Your task to perform on an android device: turn notification dots off Image 0: 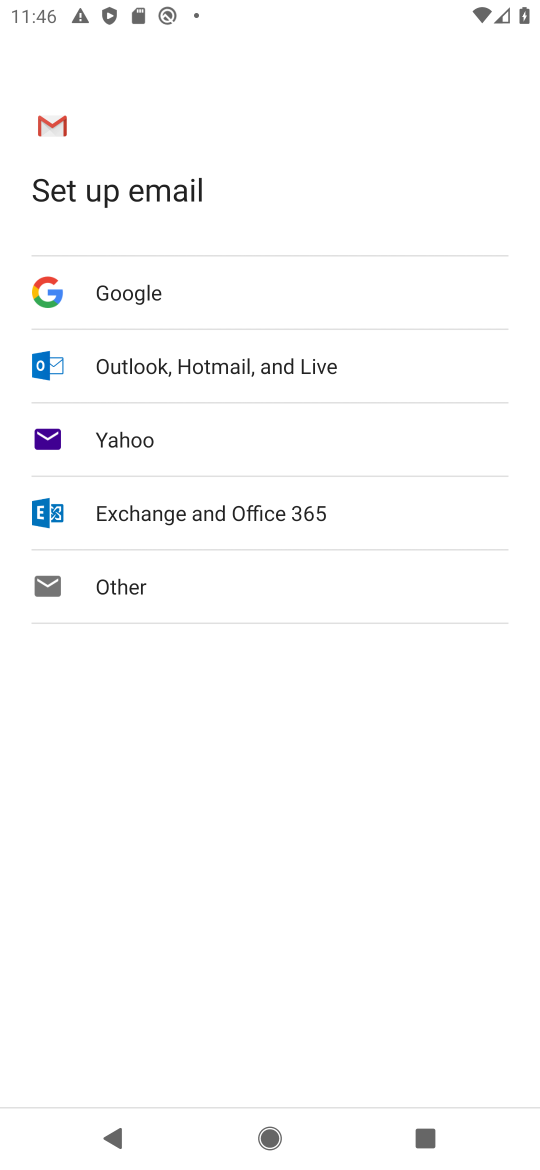
Step 0: press home button
Your task to perform on an android device: turn notification dots off Image 1: 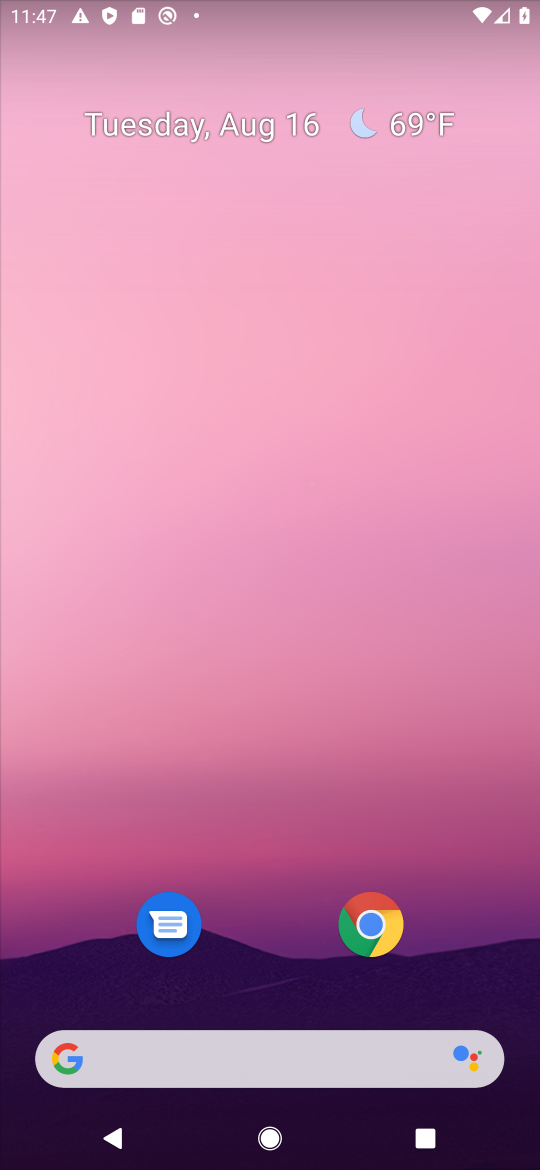
Step 1: drag from (270, 961) to (263, 121)
Your task to perform on an android device: turn notification dots off Image 2: 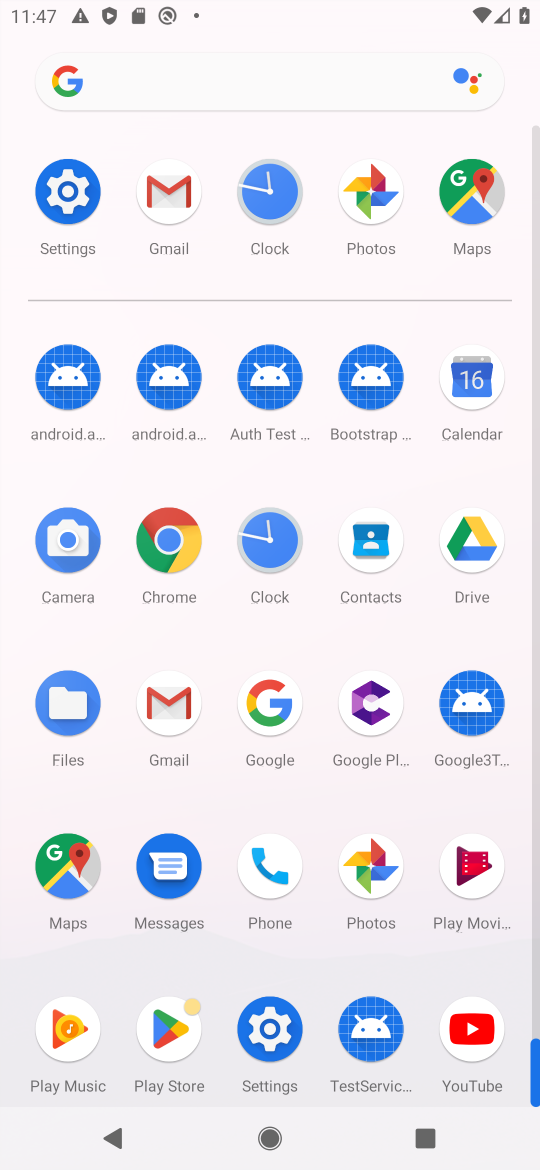
Step 2: click (68, 203)
Your task to perform on an android device: turn notification dots off Image 3: 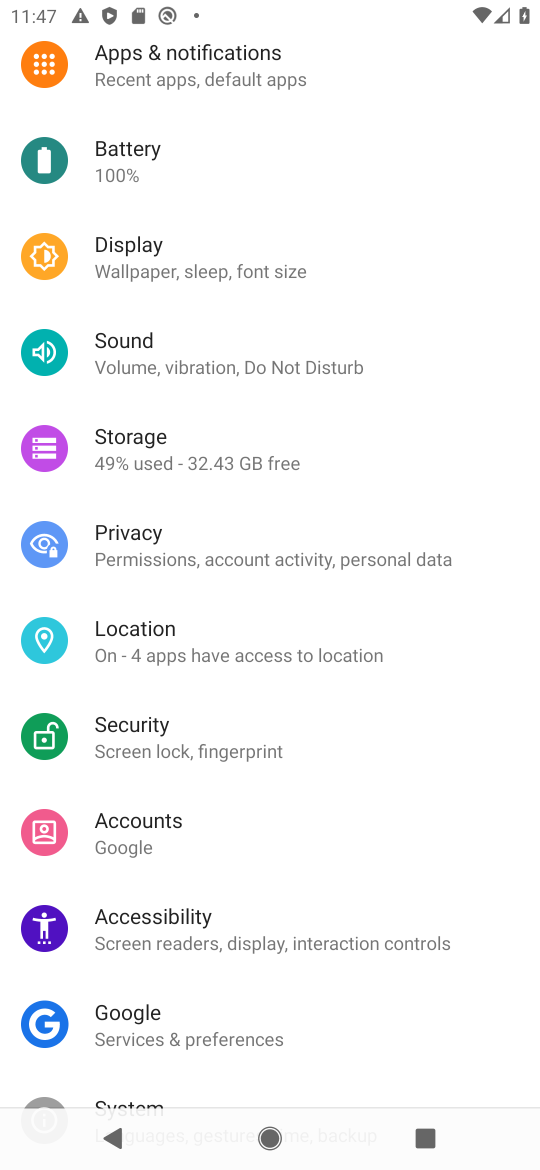
Step 3: click (154, 80)
Your task to perform on an android device: turn notification dots off Image 4: 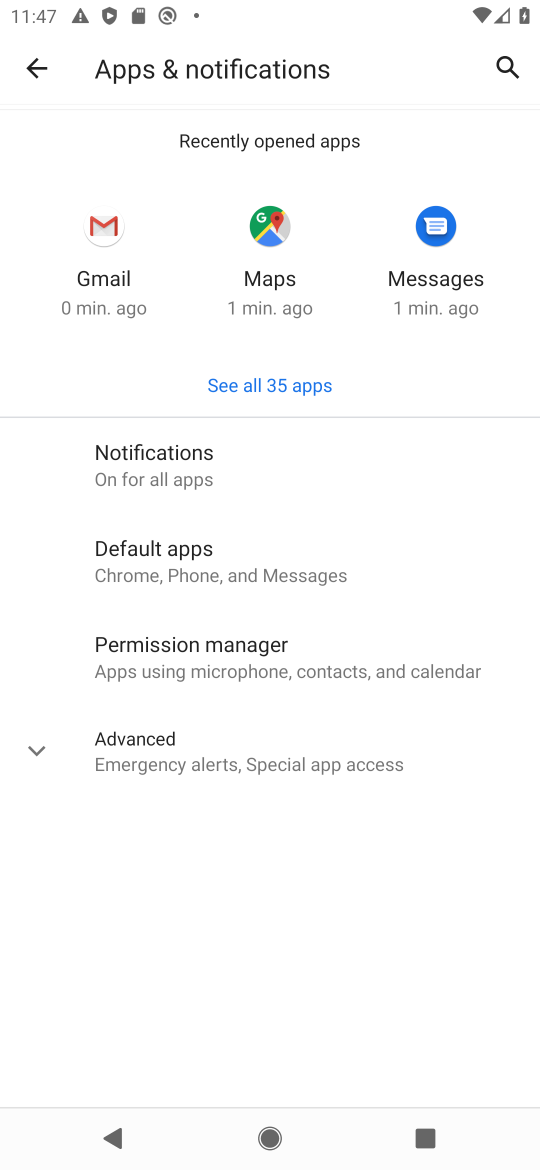
Step 4: click (303, 452)
Your task to perform on an android device: turn notification dots off Image 5: 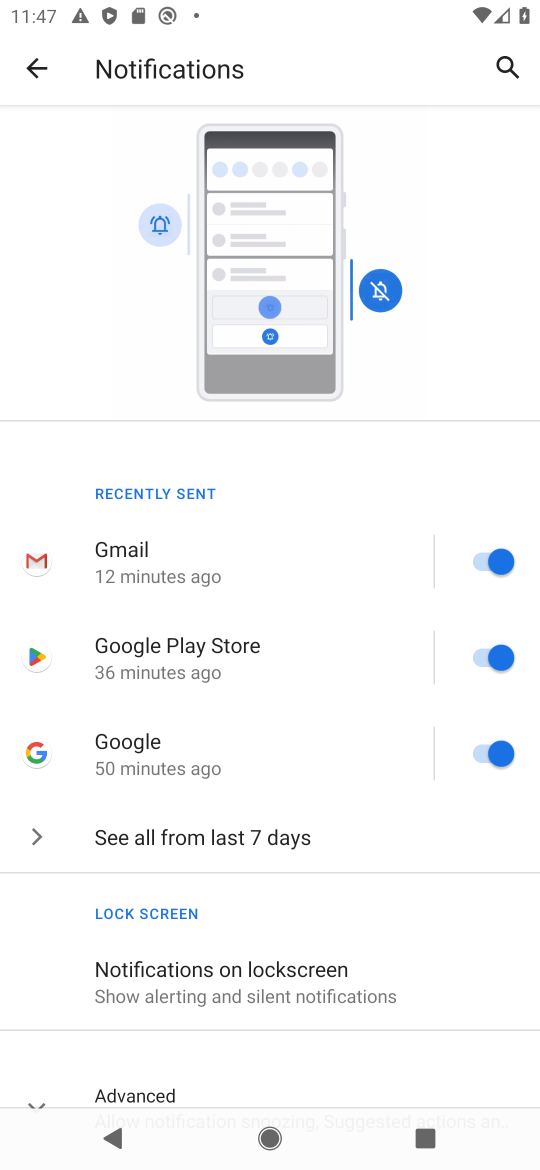
Step 5: drag from (197, 1056) to (173, 368)
Your task to perform on an android device: turn notification dots off Image 6: 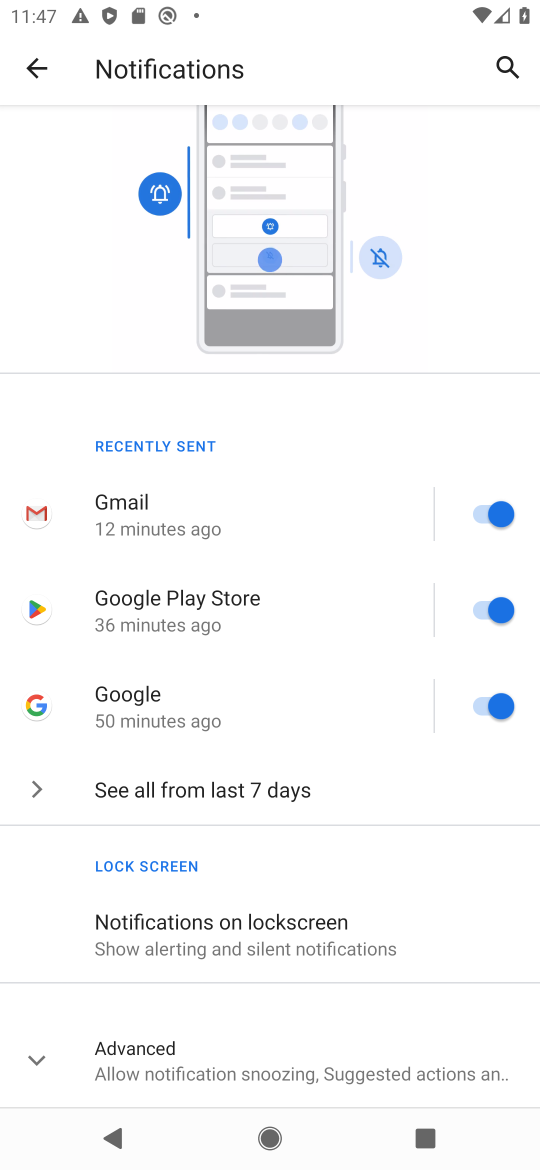
Step 6: click (380, 1070)
Your task to perform on an android device: turn notification dots off Image 7: 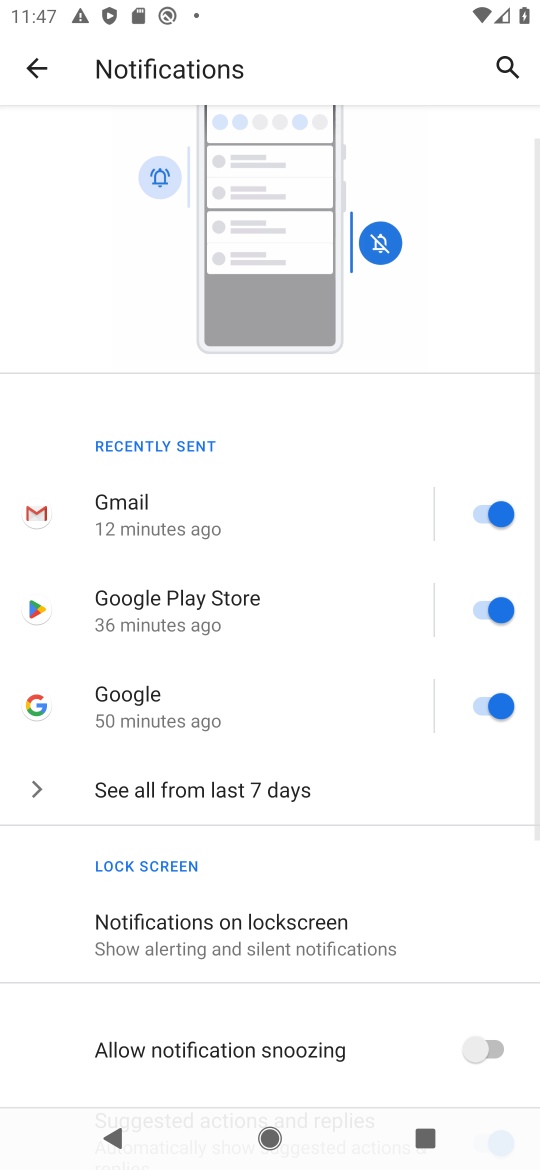
Step 7: drag from (295, 971) to (194, 145)
Your task to perform on an android device: turn notification dots off Image 8: 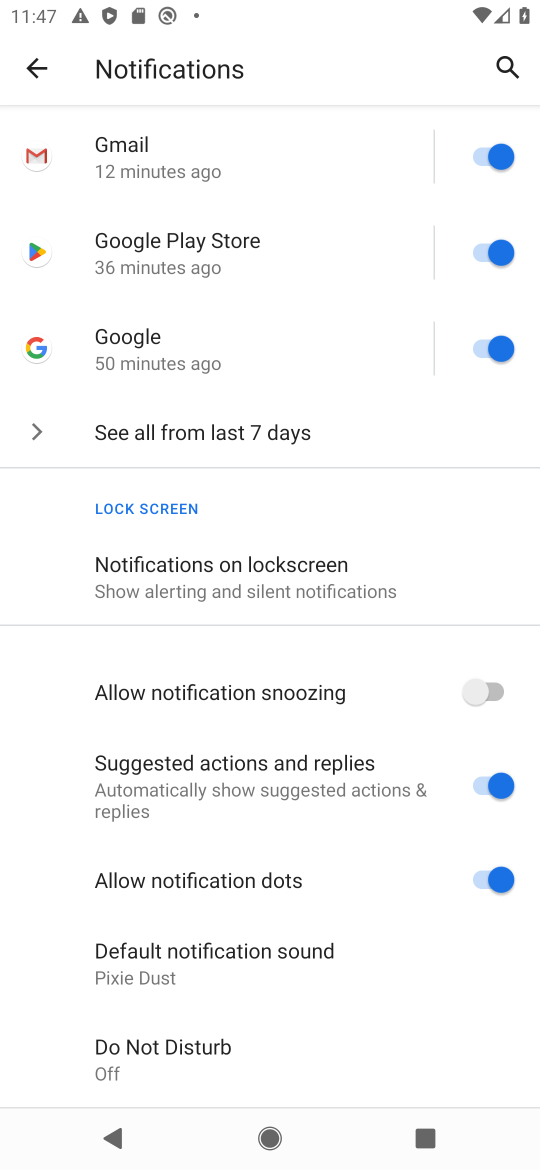
Step 8: click (502, 870)
Your task to perform on an android device: turn notification dots off Image 9: 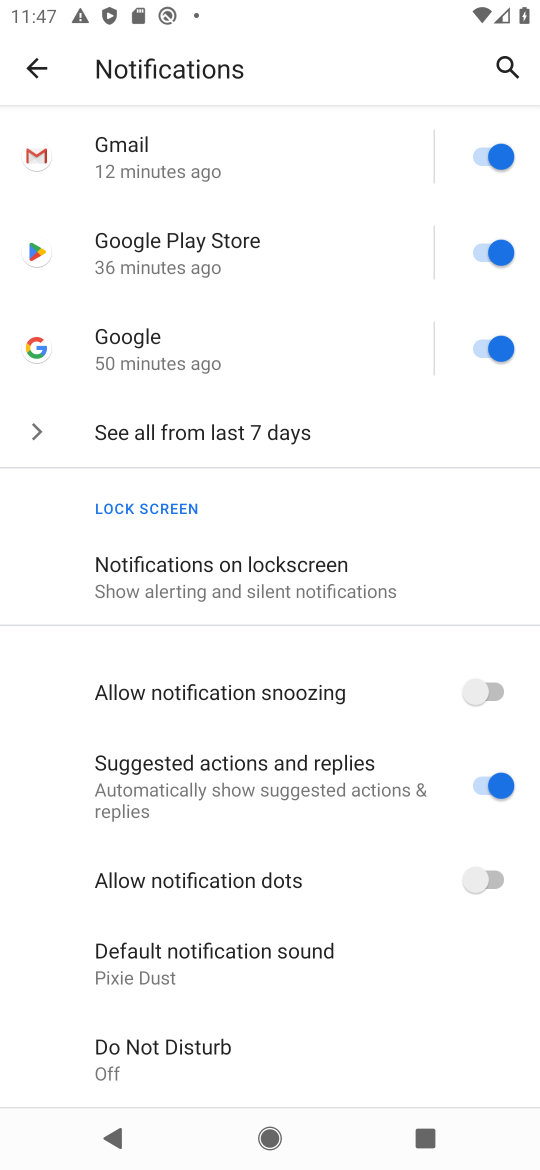
Step 9: task complete